Your task to perform on an android device: What's on my calendar tomorrow? Image 0: 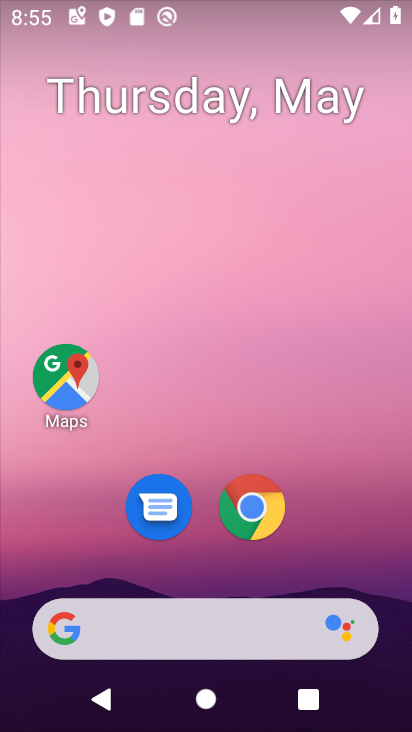
Step 0: drag from (257, 668) to (346, 284)
Your task to perform on an android device: What's on my calendar tomorrow? Image 1: 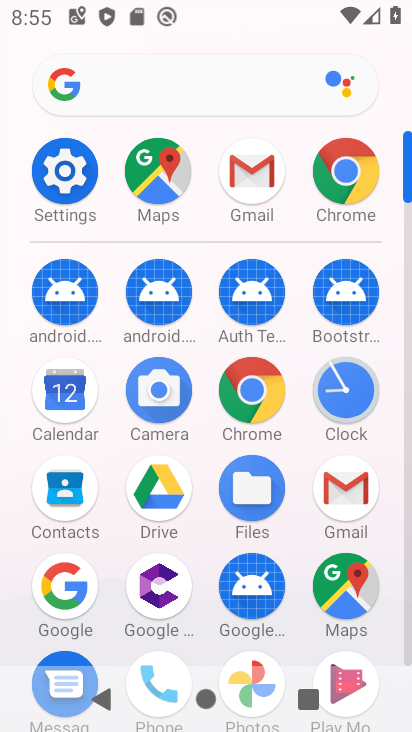
Step 1: click (82, 381)
Your task to perform on an android device: What's on my calendar tomorrow? Image 2: 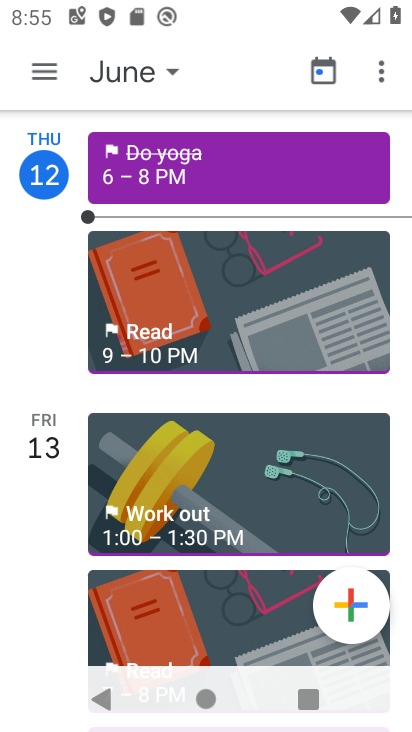
Step 2: click (47, 70)
Your task to perform on an android device: What's on my calendar tomorrow? Image 3: 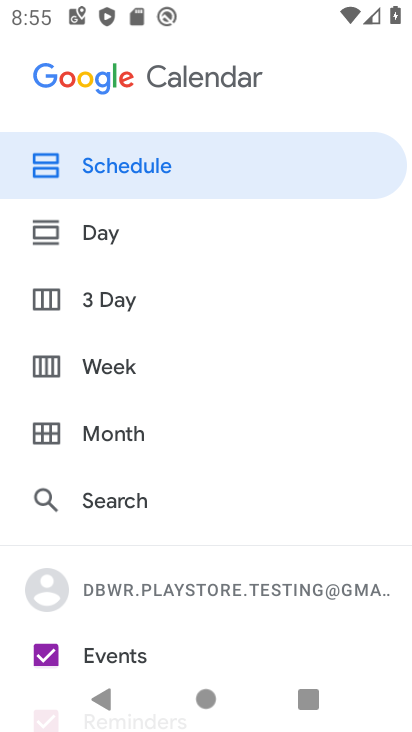
Step 3: click (143, 434)
Your task to perform on an android device: What's on my calendar tomorrow? Image 4: 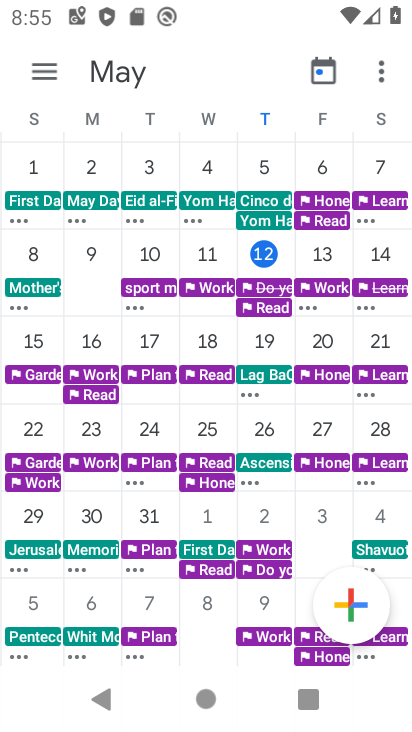
Step 4: drag from (78, 367) to (391, 399)
Your task to perform on an android device: What's on my calendar tomorrow? Image 5: 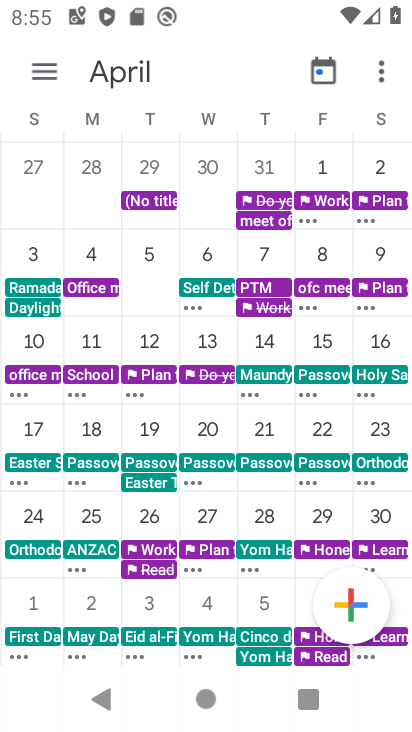
Step 5: drag from (360, 368) to (57, 431)
Your task to perform on an android device: What's on my calendar tomorrow? Image 6: 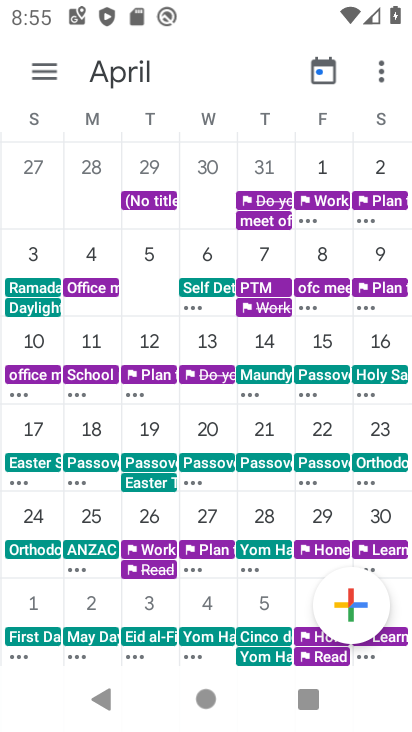
Step 6: drag from (399, 436) to (19, 526)
Your task to perform on an android device: What's on my calendar tomorrow? Image 7: 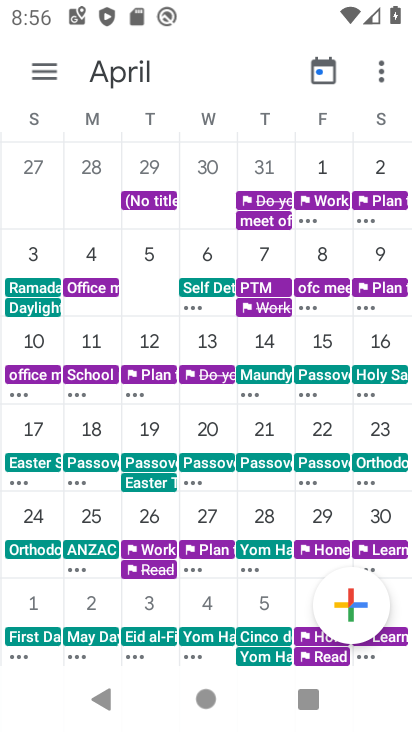
Step 7: drag from (382, 423) to (8, 417)
Your task to perform on an android device: What's on my calendar tomorrow? Image 8: 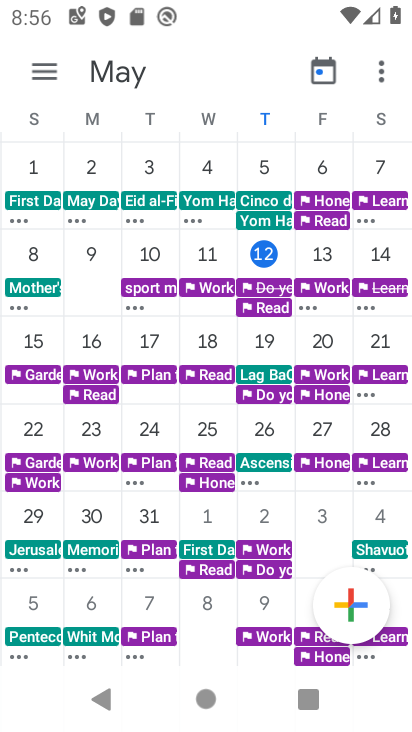
Step 8: drag from (380, 325) to (0, 391)
Your task to perform on an android device: What's on my calendar tomorrow? Image 9: 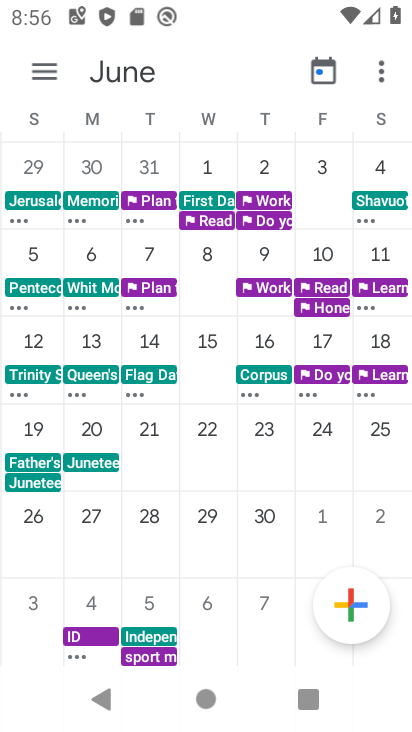
Step 9: drag from (51, 333) to (384, 292)
Your task to perform on an android device: What's on my calendar tomorrow? Image 10: 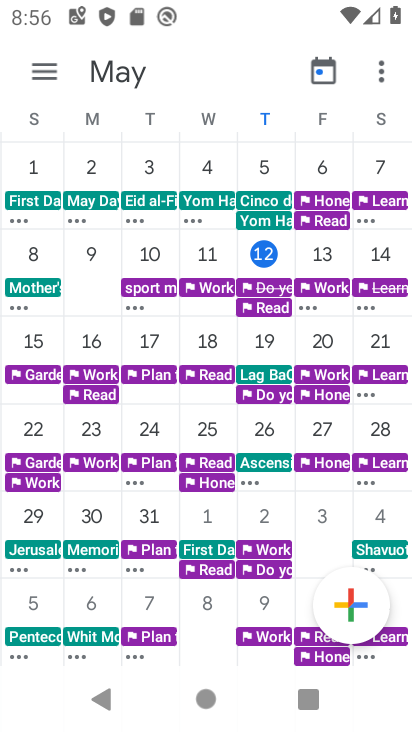
Step 10: click (311, 258)
Your task to perform on an android device: What's on my calendar tomorrow? Image 11: 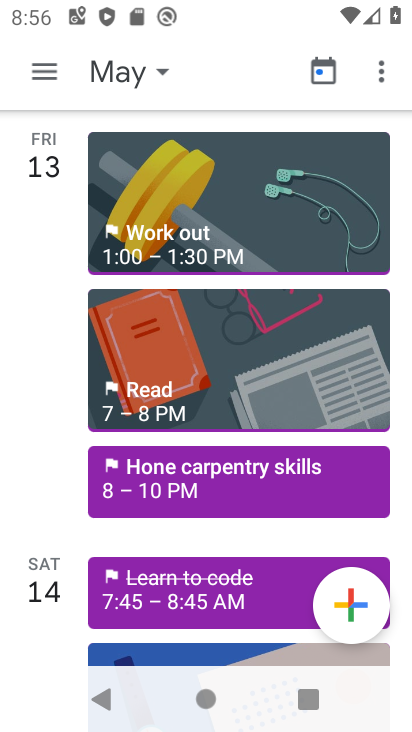
Step 11: task complete